Your task to perform on an android device: toggle notifications settings in the gmail app Image 0: 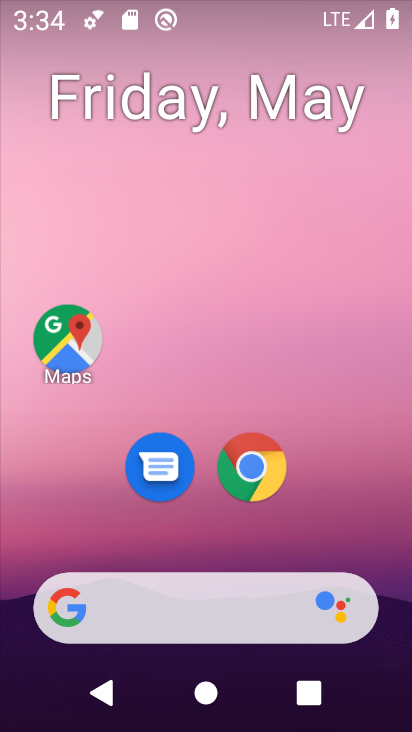
Step 0: drag from (312, 467) to (248, 42)
Your task to perform on an android device: toggle notifications settings in the gmail app Image 1: 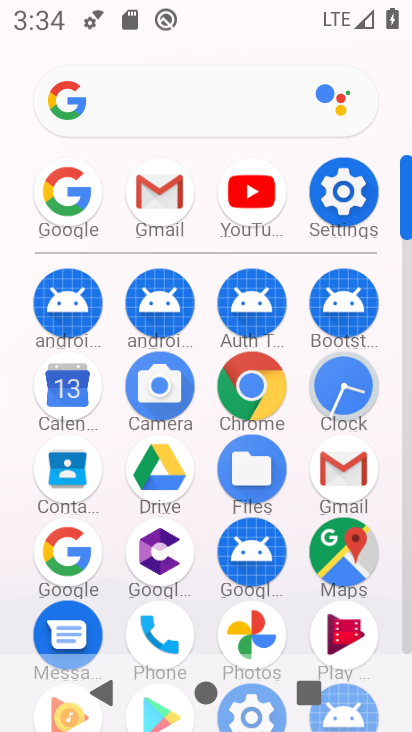
Step 1: click (350, 466)
Your task to perform on an android device: toggle notifications settings in the gmail app Image 2: 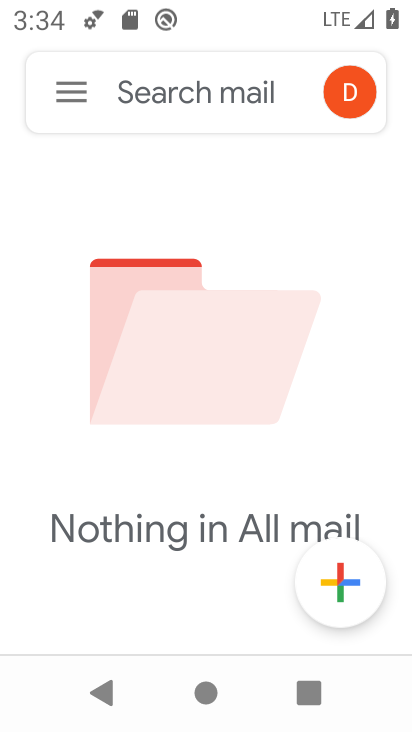
Step 2: click (67, 97)
Your task to perform on an android device: toggle notifications settings in the gmail app Image 3: 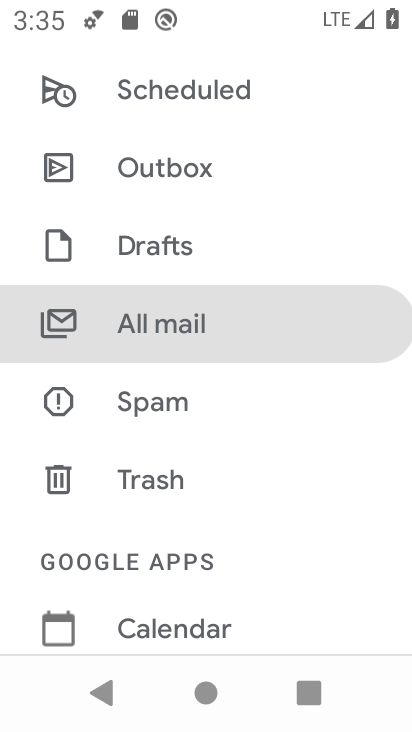
Step 3: drag from (261, 564) to (270, 158)
Your task to perform on an android device: toggle notifications settings in the gmail app Image 4: 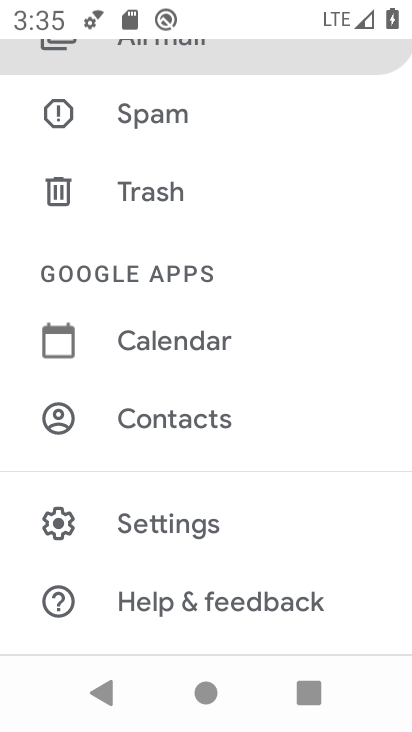
Step 4: click (202, 519)
Your task to perform on an android device: toggle notifications settings in the gmail app Image 5: 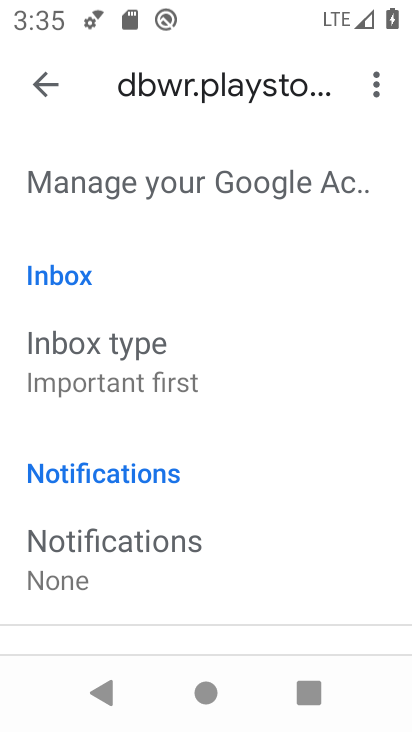
Step 5: drag from (185, 553) to (167, 408)
Your task to perform on an android device: toggle notifications settings in the gmail app Image 6: 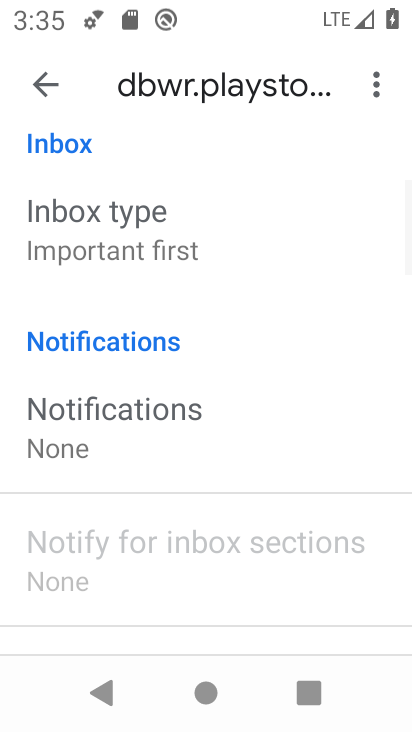
Step 6: click (121, 401)
Your task to perform on an android device: toggle notifications settings in the gmail app Image 7: 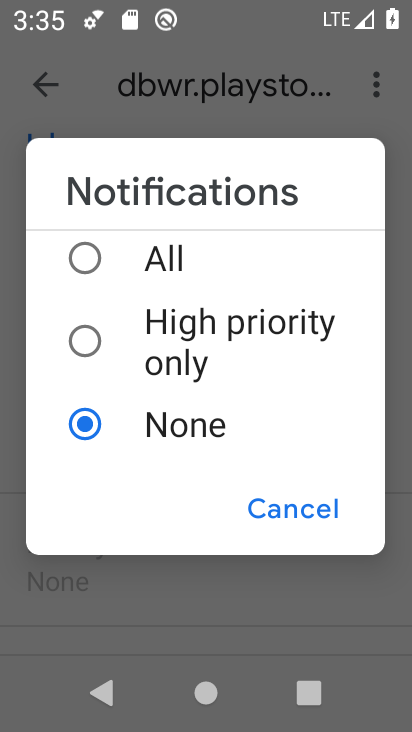
Step 7: click (160, 258)
Your task to perform on an android device: toggle notifications settings in the gmail app Image 8: 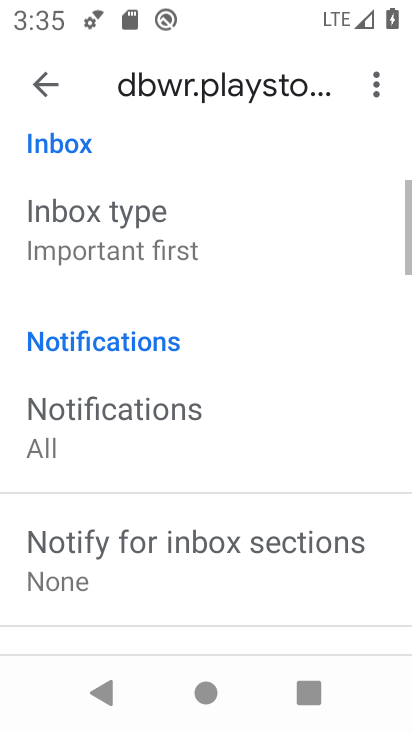
Step 8: task complete